Your task to perform on an android device: check data usage Image 0: 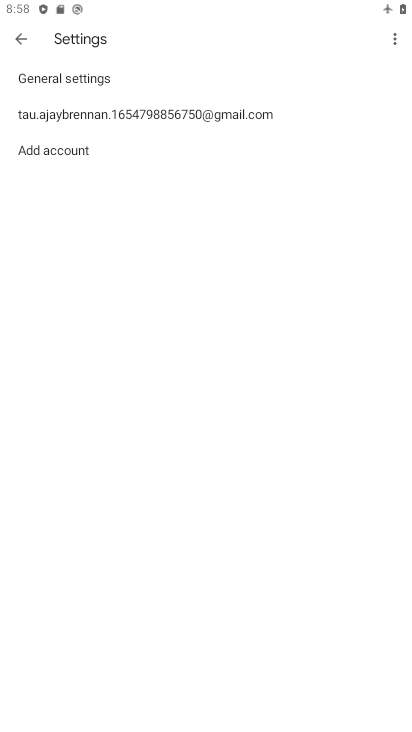
Step 0: press home button
Your task to perform on an android device: check data usage Image 1: 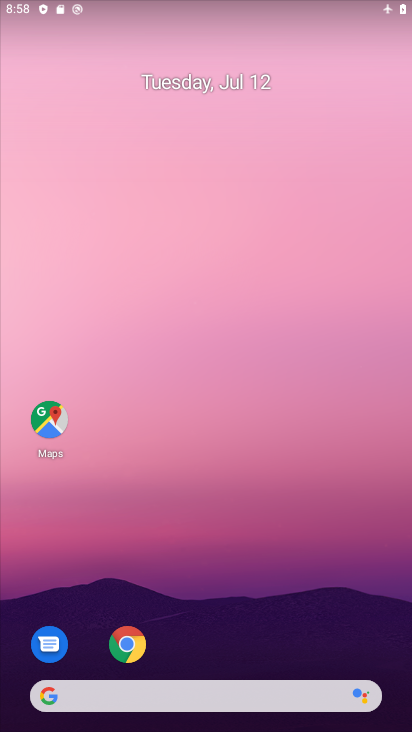
Step 1: drag from (223, 631) to (231, 212)
Your task to perform on an android device: check data usage Image 2: 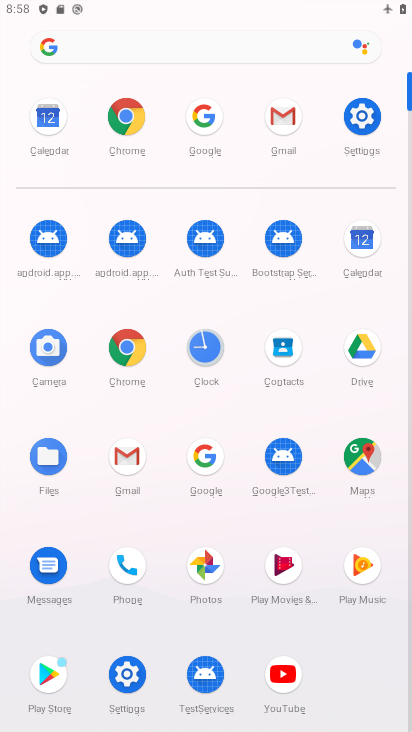
Step 2: click (350, 101)
Your task to perform on an android device: check data usage Image 3: 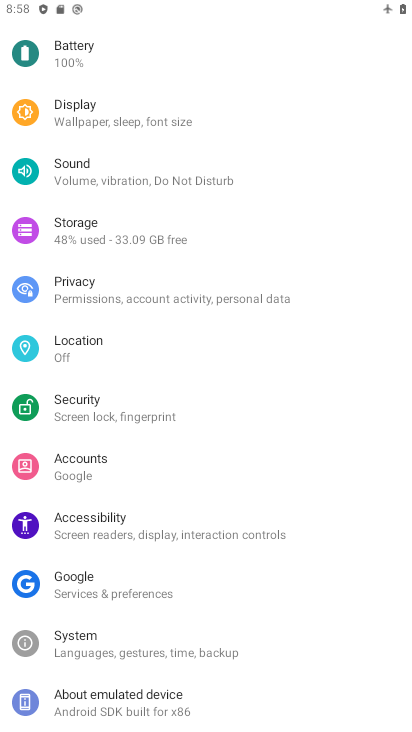
Step 3: drag from (164, 303) to (151, 526)
Your task to perform on an android device: check data usage Image 4: 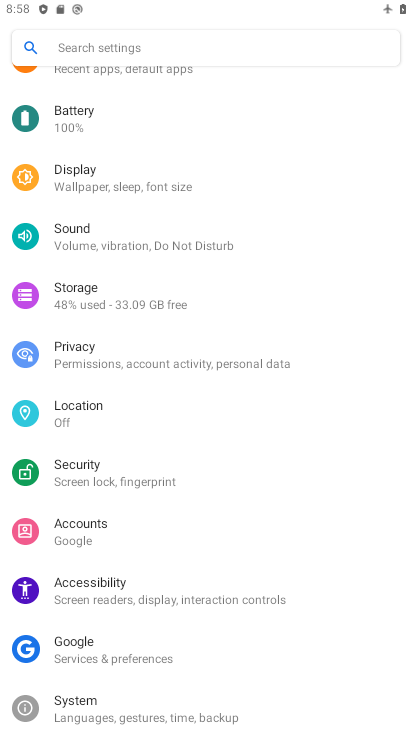
Step 4: drag from (198, 253) to (222, 578)
Your task to perform on an android device: check data usage Image 5: 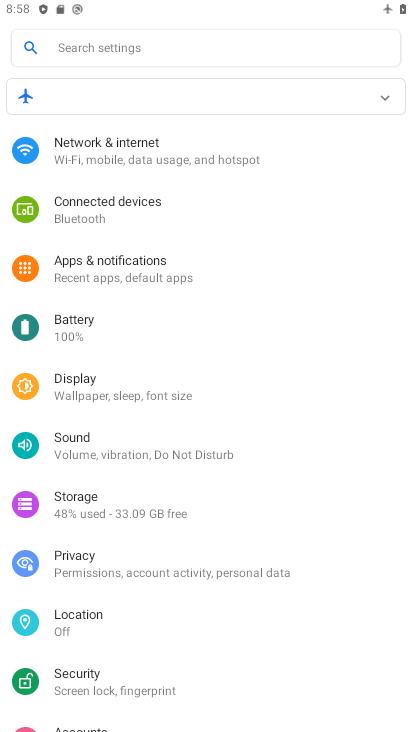
Step 5: click (140, 158)
Your task to perform on an android device: check data usage Image 6: 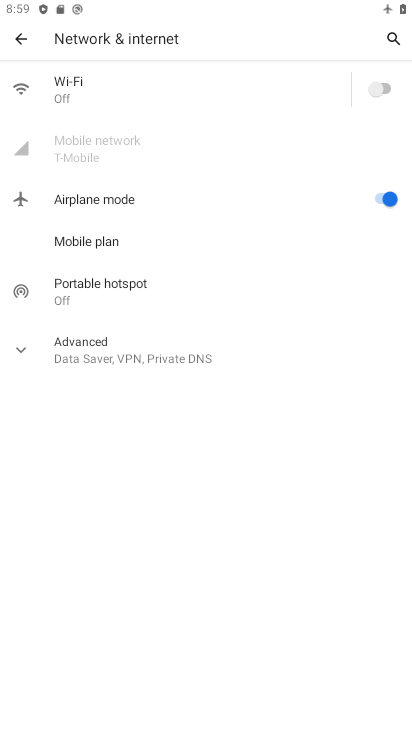
Step 6: click (114, 149)
Your task to perform on an android device: check data usage Image 7: 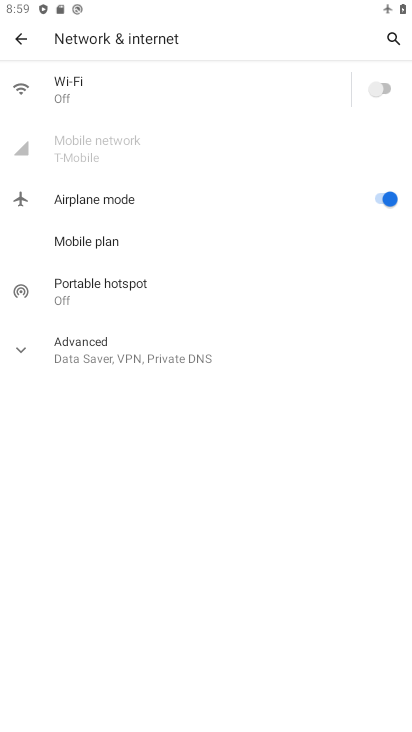
Step 7: task complete